Your task to perform on an android device: open app "Roku - Official Remote Control" Image 0: 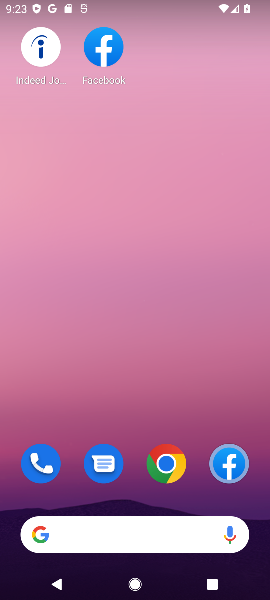
Step 0: press home button
Your task to perform on an android device: open app "Roku - Official Remote Control" Image 1: 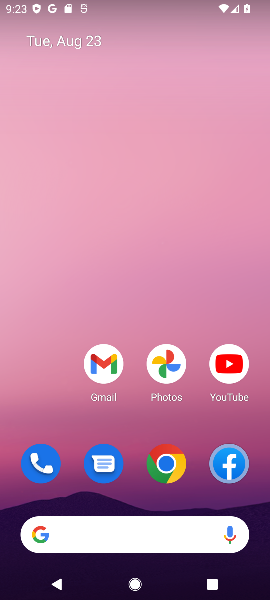
Step 1: drag from (135, 419) to (184, 43)
Your task to perform on an android device: open app "Roku - Official Remote Control" Image 2: 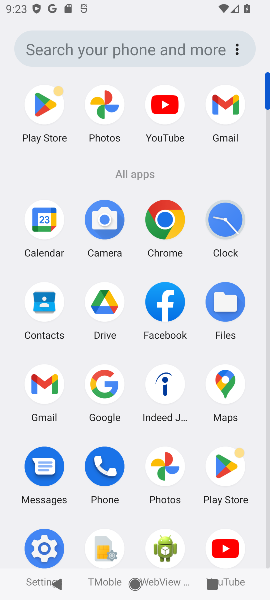
Step 2: click (43, 102)
Your task to perform on an android device: open app "Roku - Official Remote Control" Image 3: 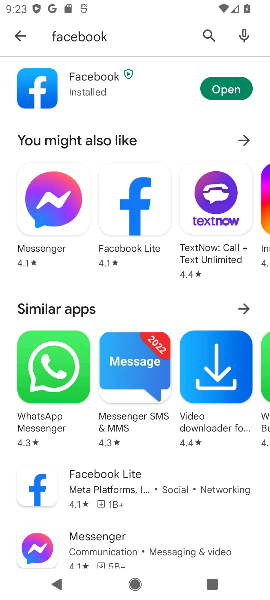
Step 3: click (209, 31)
Your task to perform on an android device: open app "Roku - Official Remote Control" Image 4: 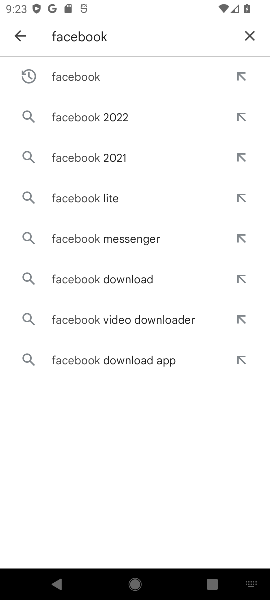
Step 4: click (247, 35)
Your task to perform on an android device: open app "Roku - Official Remote Control" Image 5: 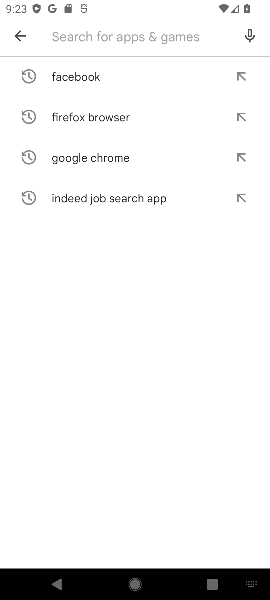
Step 5: type "Roku - Official Remote Control"
Your task to perform on an android device: open app "Roku - Official Remote Control" Image 6: 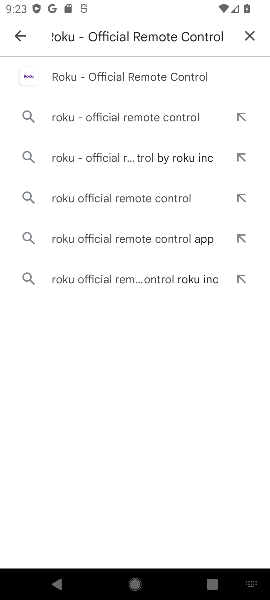
Step 6: click (81, 73)
Your task to perform on an android device: open app "Roku - Official Remote Control" Image 7: 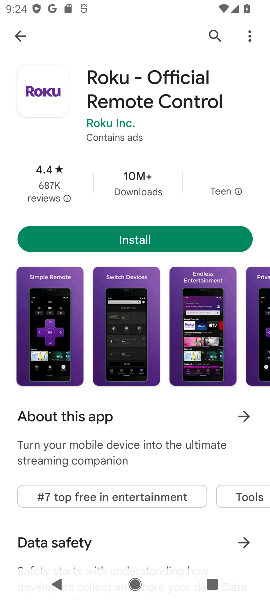
Step 7: task complete